Your task to perform on an android device: Open Google Image 0: 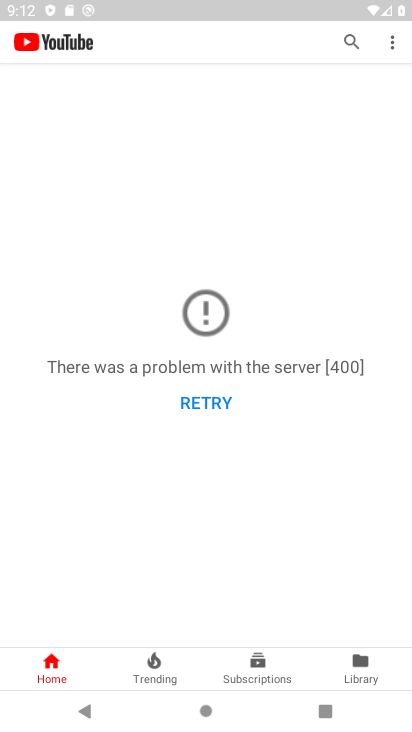
Step 0: press home button
Your task to perform on an android device: Open Google Image 1: 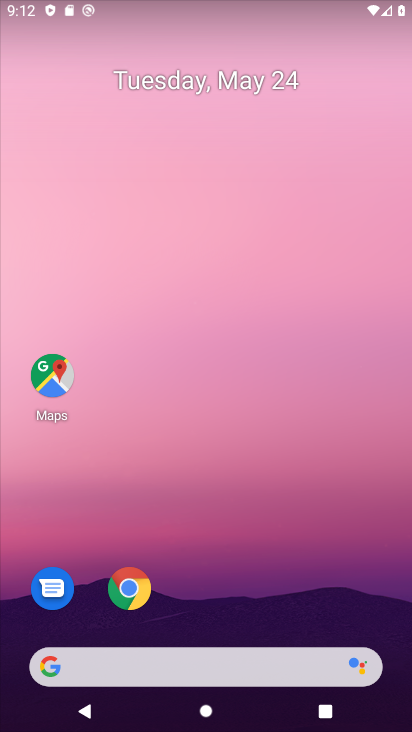
Step 1: drag from (271, 382) to (297, 68)
Your task to perform on an android device: Open Google Image 2: 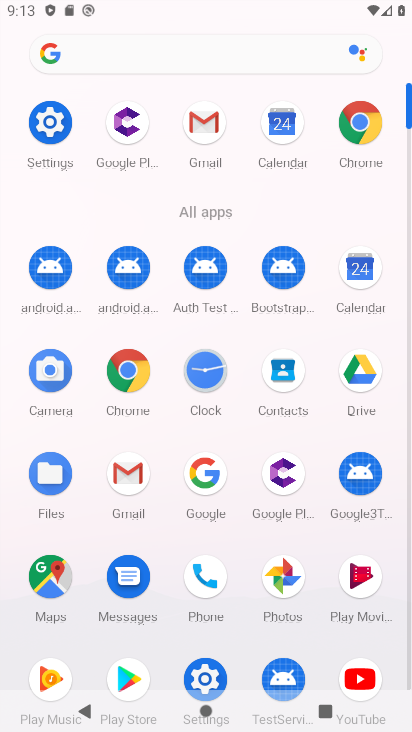
Step 2: click (209, 488)
Your task to perform on an android device: Open Google Image 3: 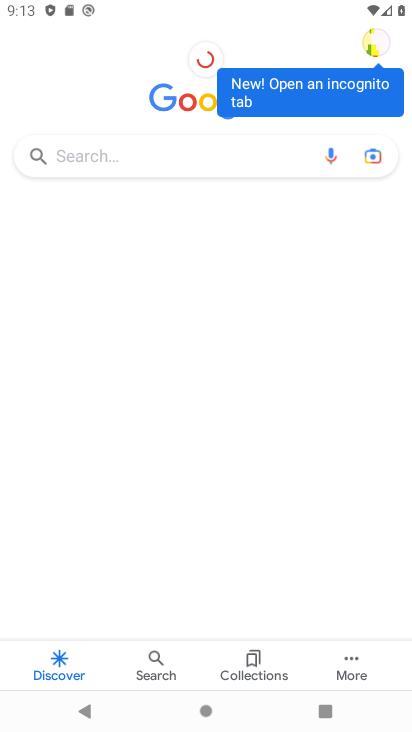
Step 3: task complete